Your task to perform on an android device: toggle airplane mode Image 0: 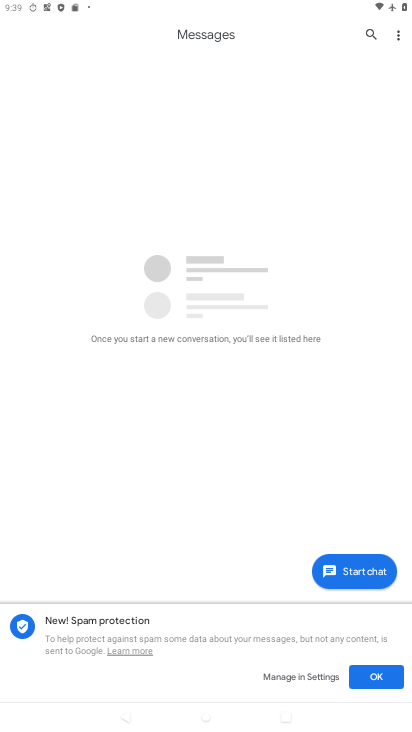
Step 0: press home button
Your task to perform on an android device: toggle airplane mode Image 1: 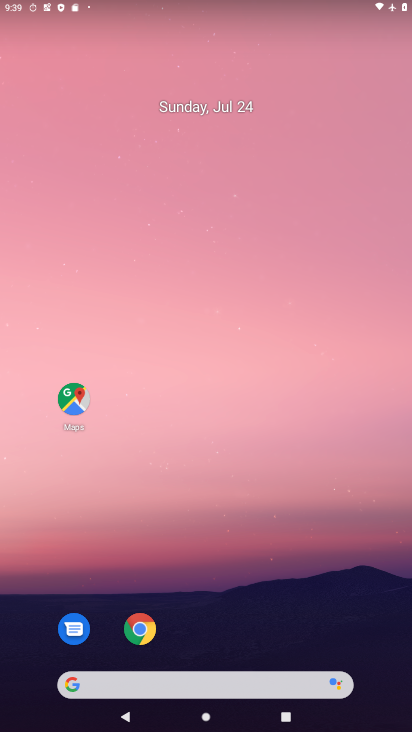
Step 1: drag from (178, 724) to (186, 284)
Your task to perform on an android device: toggle airplane mode Image 2: 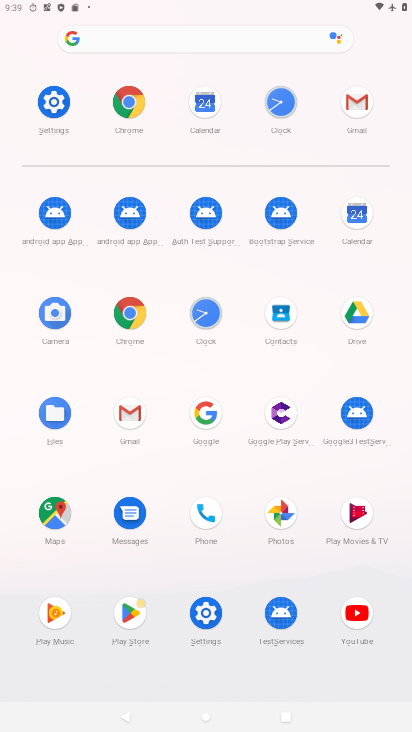
Step 2: click (46, 98)
Your task to perform on an android device: toggle airplane mode Image 3: 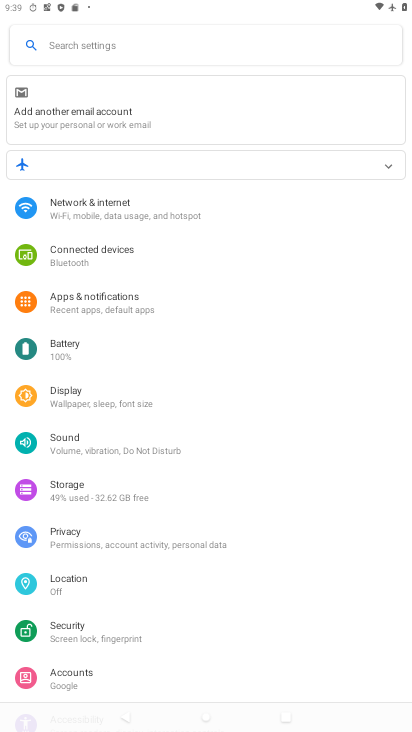
Step 3: click (94, 213)
Your task to perform on an android device: toggle airplane mode Image 4: 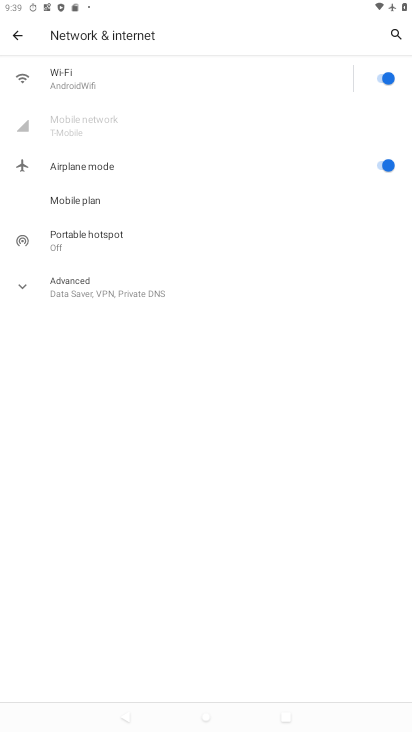
Step 4: click (374, 165)
Your task to perform on an android device: toggle airplane mode Image 5: 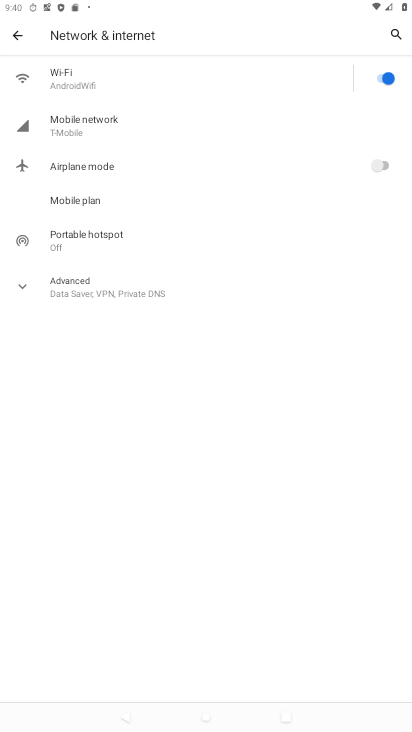
Step 5: task complete